Your task to perform on an android device: Open the phone app and click the voicemail tab. Image 0: 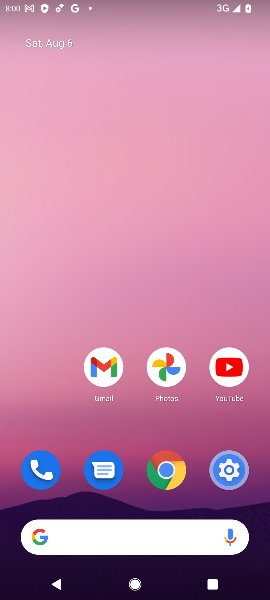
Step 0: drag from (154, 364) to (204, 71)
Your task to perform on an android device: Open the phone app and click the voicemail tab. Image 1: 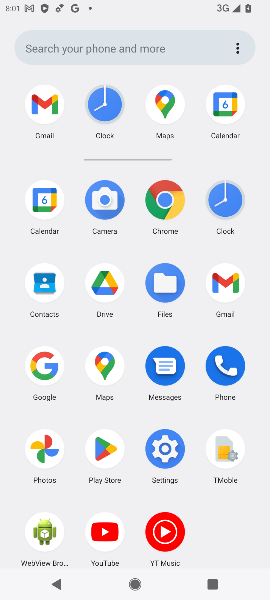
Step 1: click (232, 360)
Your task to perform on an android device: Open the phone app and click the voicemail tab. Image 2: 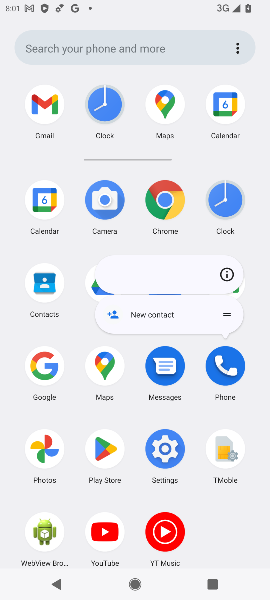
Step 2: click (221, 369)
Your task to perform on an android device: Open the phone app and click the voicemail tab. Image 3: 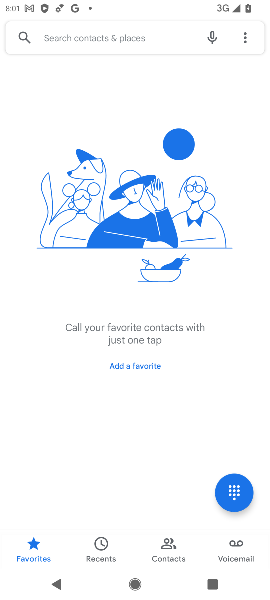
Step 3: click (238, 553)
Your task to perform on an android device: Open the phone app and click the voicemail tab. Image 4: 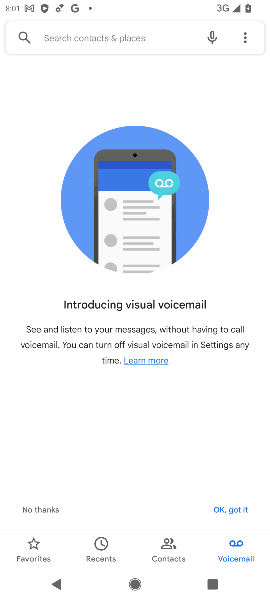
Step 4: task complete